Your task to perform on an android device: open a bookmark in the chrome app Image 0: 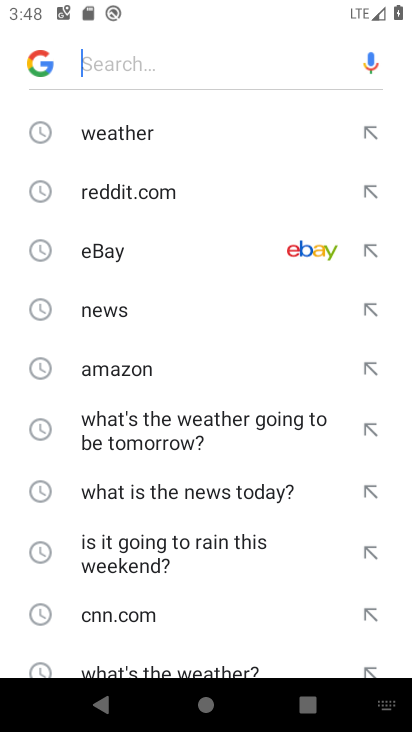
Step 0: press home button
Your task to perform on an android device: open a bookmark in the chrome app Image 1: 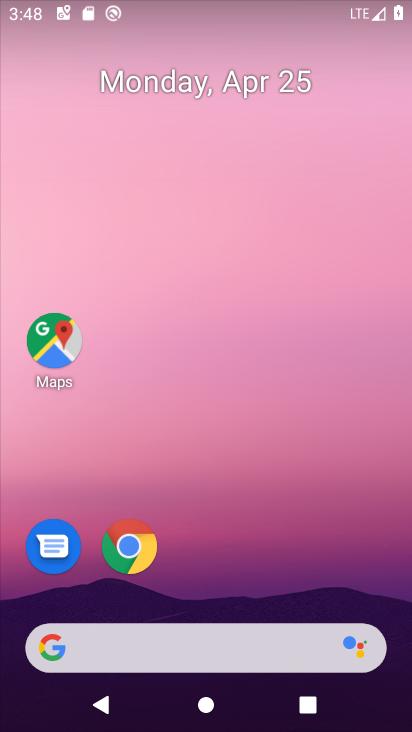
Step 1: click (132, 544)
Your task to perform on an android device: open a bookmark in the chrome app Image 2: 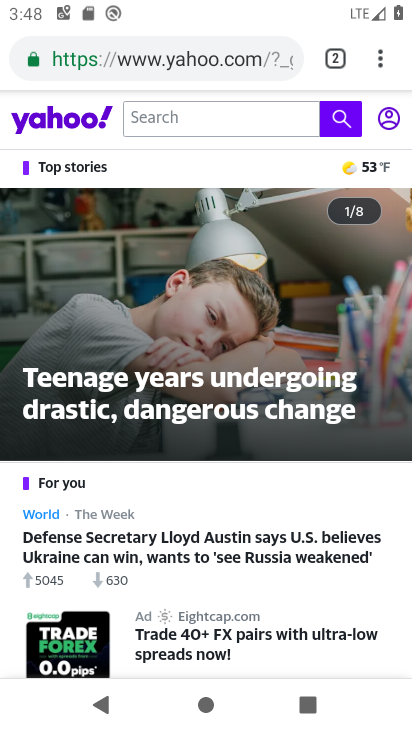
Step 2: click (382, 58)
Your task to perform on an android device: open a bookmark in the chrome app Image 3: 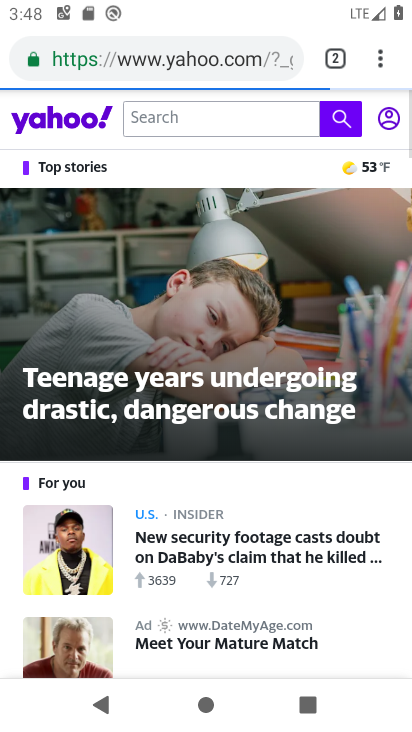
Step 3: click (382, 58)
Your task to perform on an android device: open a bookmark in the chrome app Image 4: 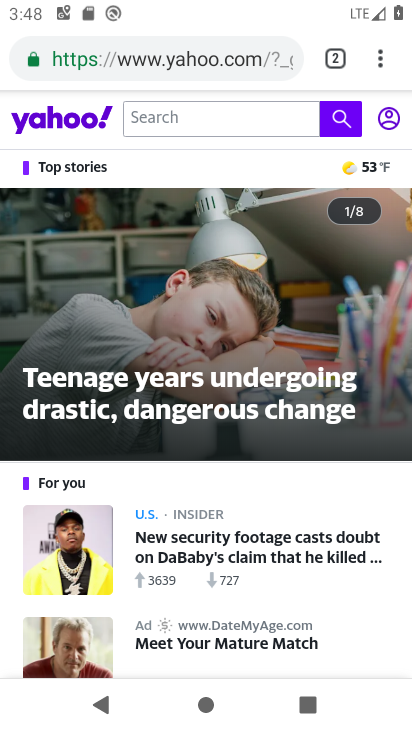
Step 4: click (382, 58)
Your task to perform on an android device: open a bookmark in the chrome app Image 5: 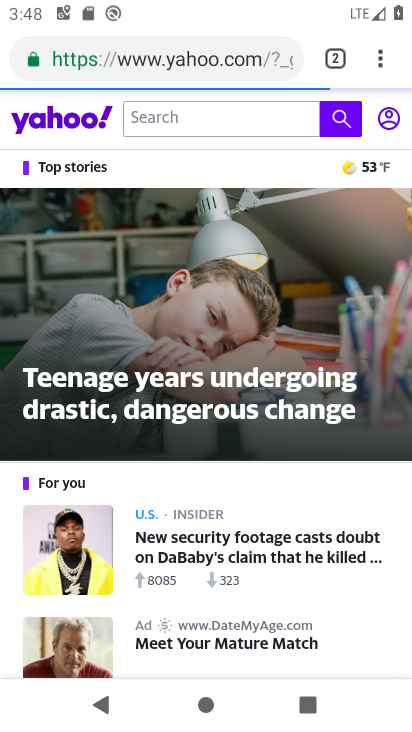
Step 5: click (395, 63)
Your task to perform on an android device: open a bookmark in the chrome app Image 6: 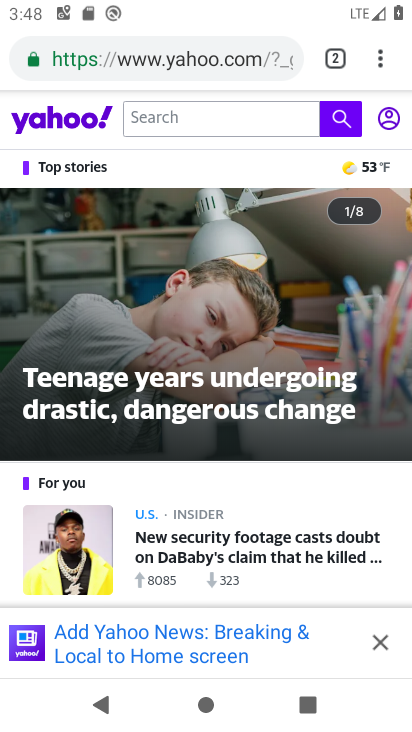
Step 6: click (395, 63)
Your task to perform on an android device: open a bookmark in the chrome app Image 7: 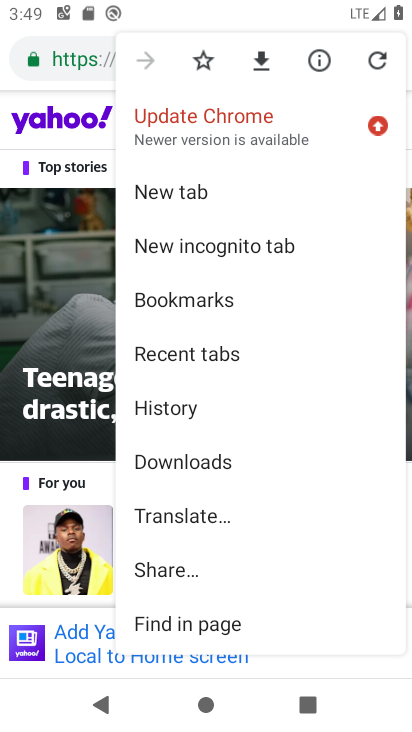
Step 7: click (195, 307)
Your task to perform on an android device: open a bookmark in the chrome app Image 8: 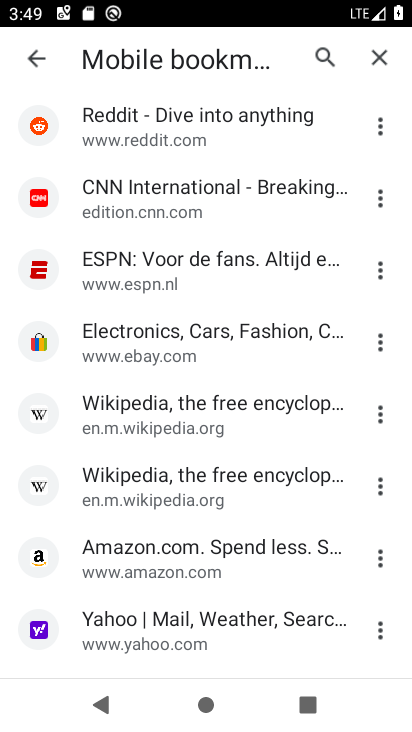
Step 8: click (139, 192)
Your task to perform on an android device: open a bookmark in the chrome app Image 9: 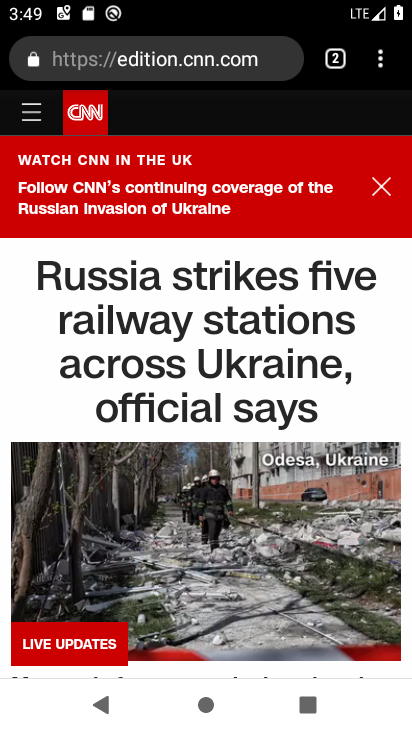
Step 9: task complete